Your task to perform on an android device: toggle notifications settings in the gmail app Image 0: 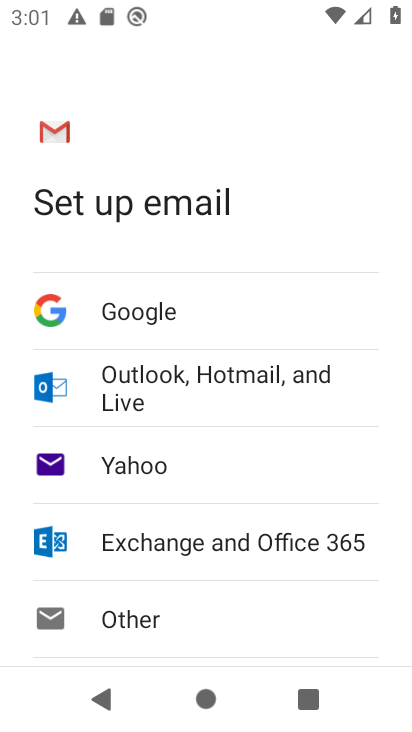
Step 0: press home button
Your task to perform on an android device: toggle notifications settings in the gmail app Image 1: 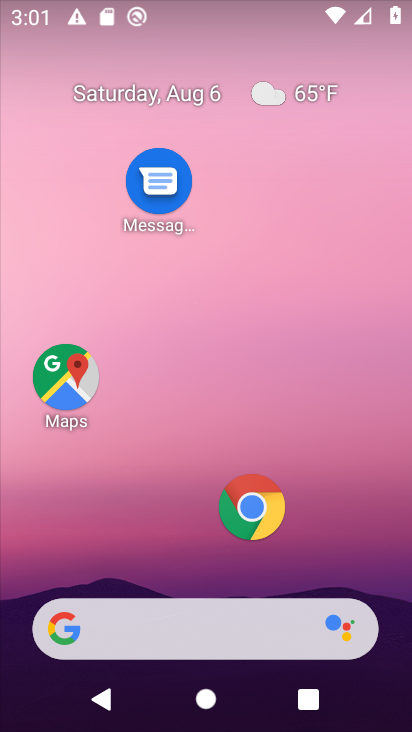
Step 1: drag from (117, 532) to (274, 49)
Your task to perform on an android device: toggle notifications settings in the gmail app Image 2: 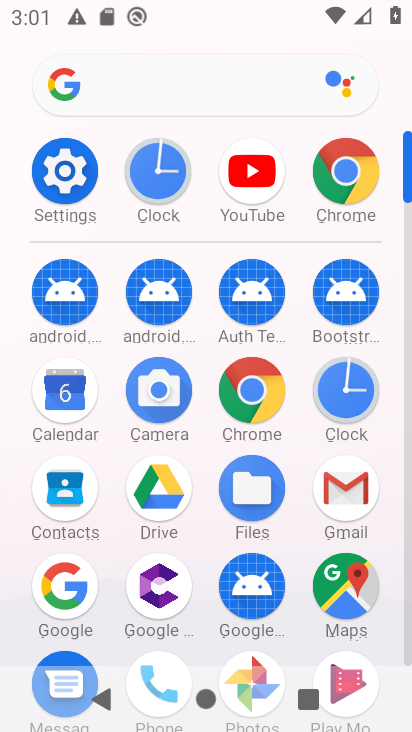
Step 2: click (341, 496)
Your task to perform on an android device: toggle notifications settings in the gmail app Image 3: 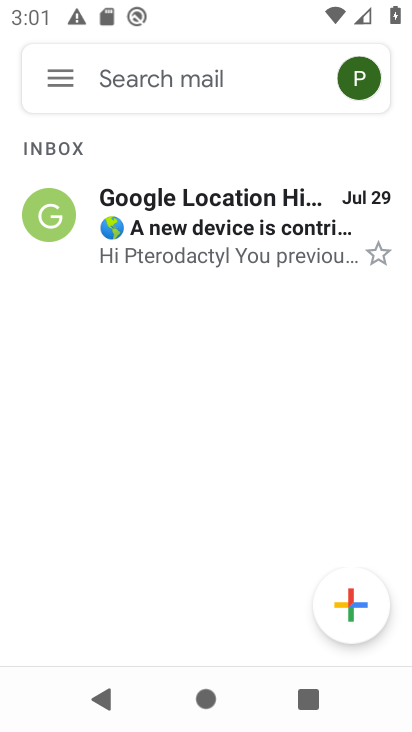
Step 3: click (56, 63)
Your task to perform on an android device: toggle notifications settings in the gmail app Image 4: 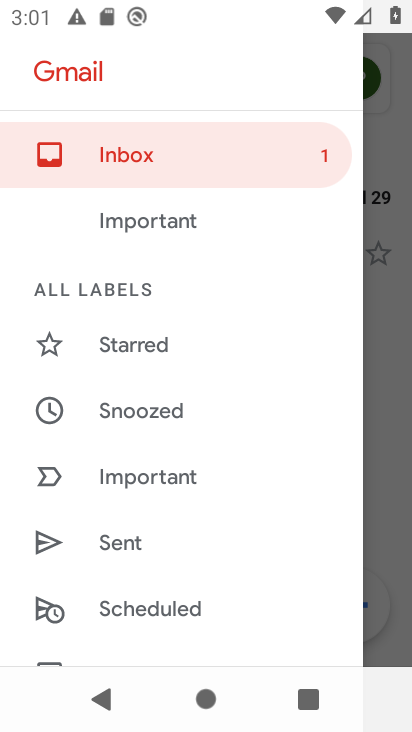
Step 4: drag from (181, 567) to (220, 122)
Your task to perform on an android device: toggle notifications settings in the gmail app Image 5: 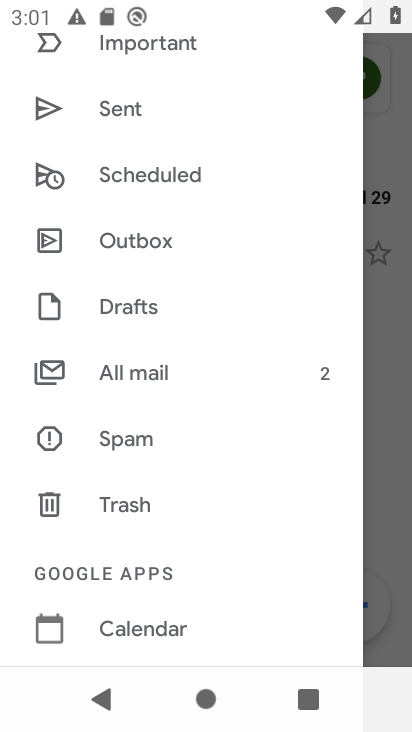
Step 5: drag from (173, 540) to (207, 69)
Your task to perform on an android device: toggle notifications settings in the gmail app Image 6: 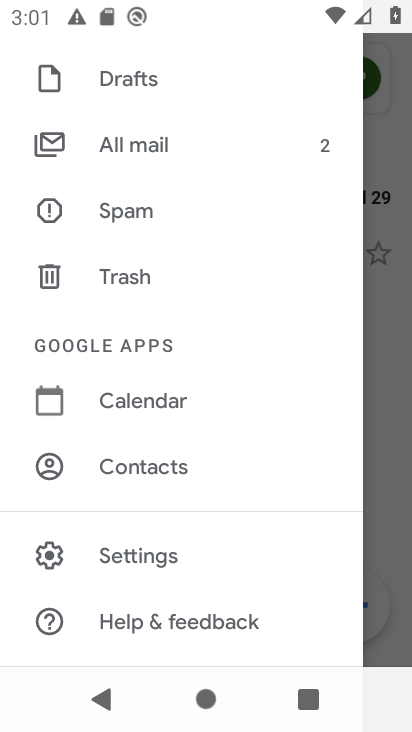
Step 6: click (124, 558)
Your task to perform on an android device: toggle notifications settings in the gmail app Image 7: 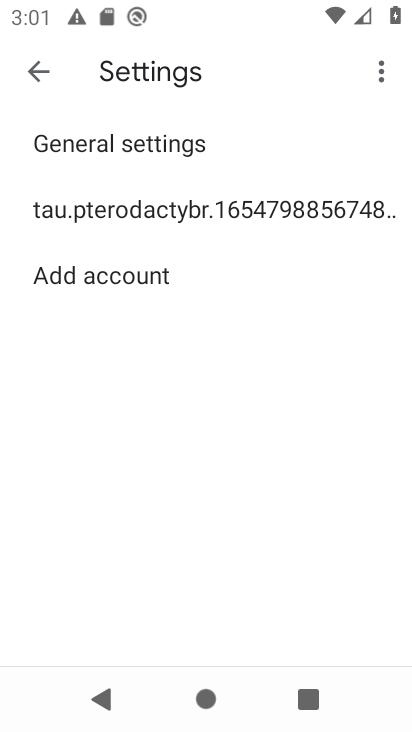
Step 7: click (114, 138)
Your task to perform on an android device: toggle notifications settings in the gmail app Image 8: 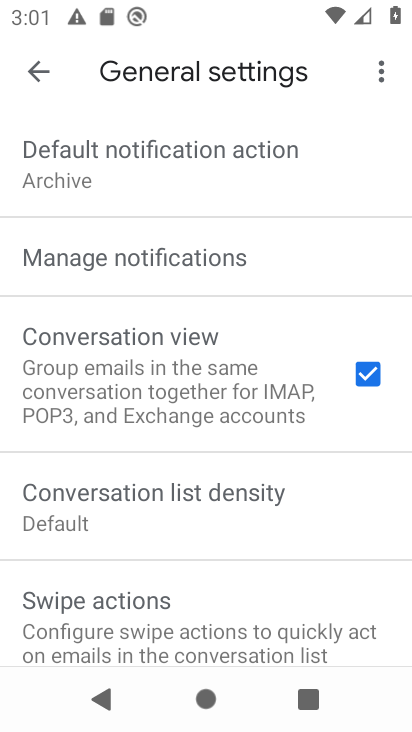
Step 8: click (105, 256)
Your task to perform on an android device: toggle notifications settings in the gmail app Image 9: 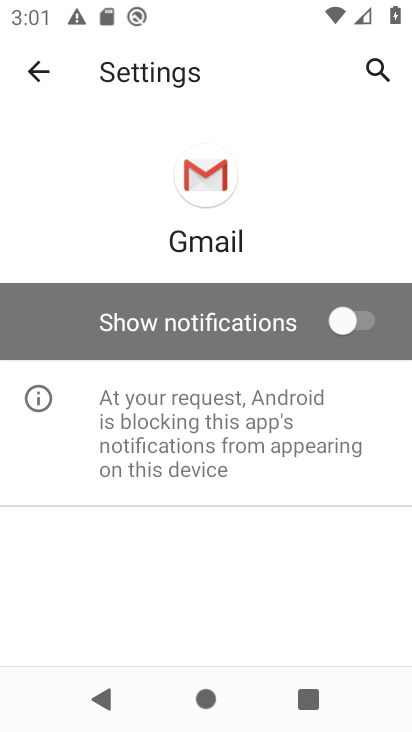
Step 9: click (308, 326)
Your task to perform on an android device: toggle notifications settings in the gmail app Image 10: 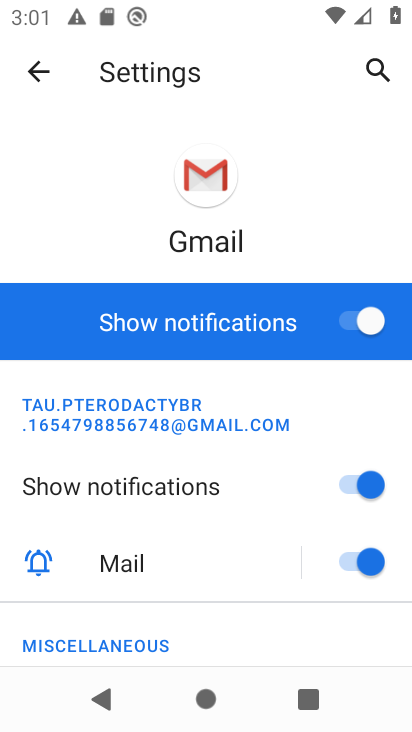
Step 10: task complete